Your task to perform on an android device: Play the last video I watched on Youtube Image 0: 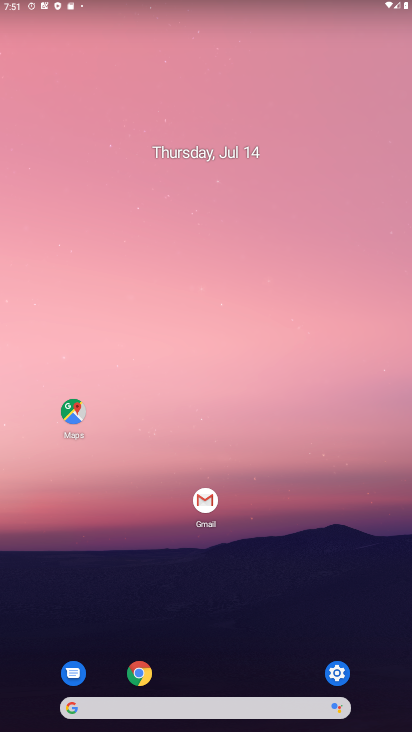
Step 0: drag from (281, 480) to (329, 145)
Your task to perform on an android device: Play the last video I watched on Youtube Image 1: 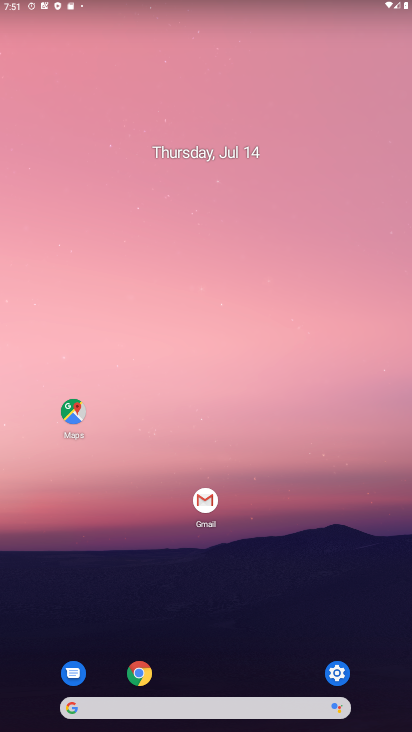
Step 1: drag from (207, 710) to (297, 95)
Your task to perform on an android device: Play the last video I watched on Youtube Image 2: 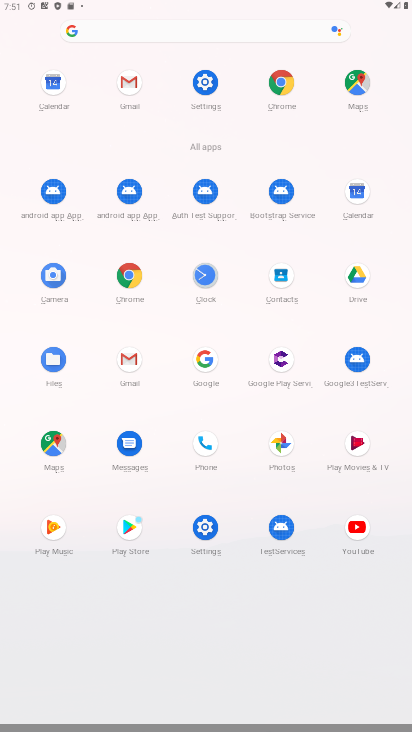
Step 2: click (353, 535)
Your task to perform on an android device: Play the last video I watched on Youtube Image 3: 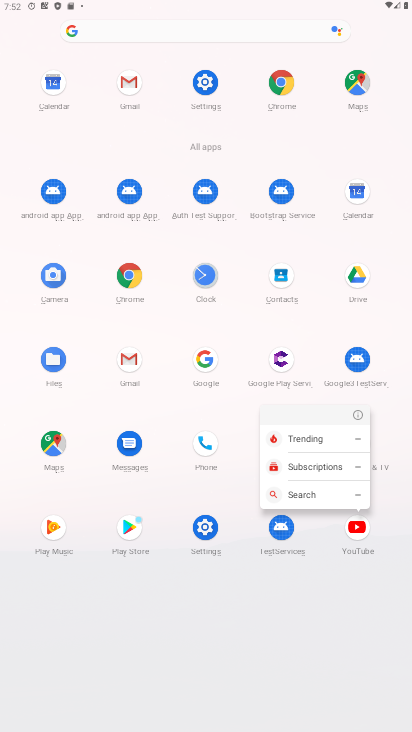
Step 3: click (352, 532)
Your task to perform on an android device: Play the last video I watched on Youtube Image 4: 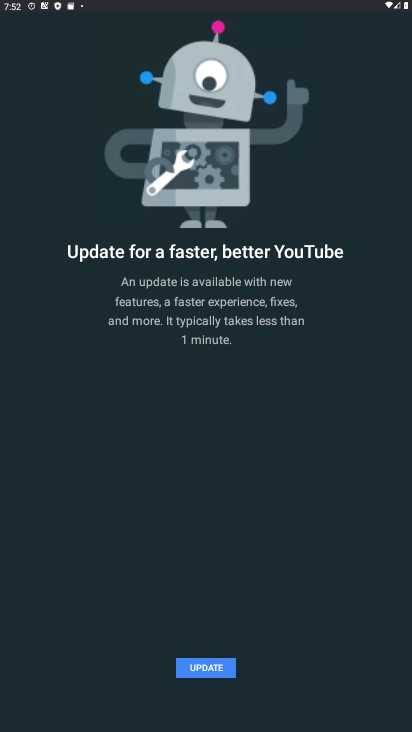
Step 4: click (213, 663)
Your task to perform on an android device: Play the last video I watched on Youtube Image 5: 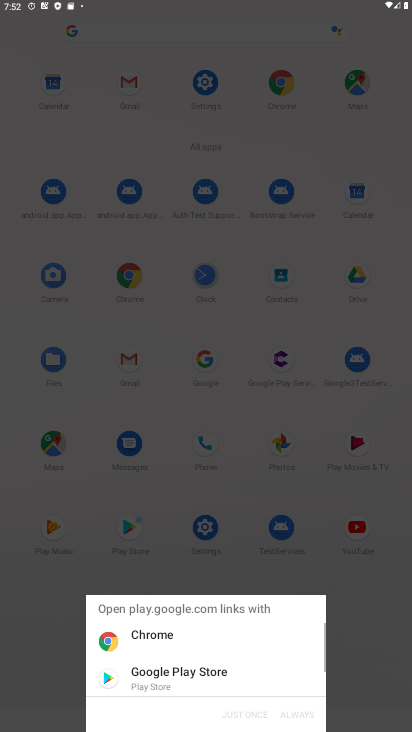
Step 5: click (210, 682)
Your task to perform on an android device: Play the last video I watched on Youtube Image 6: 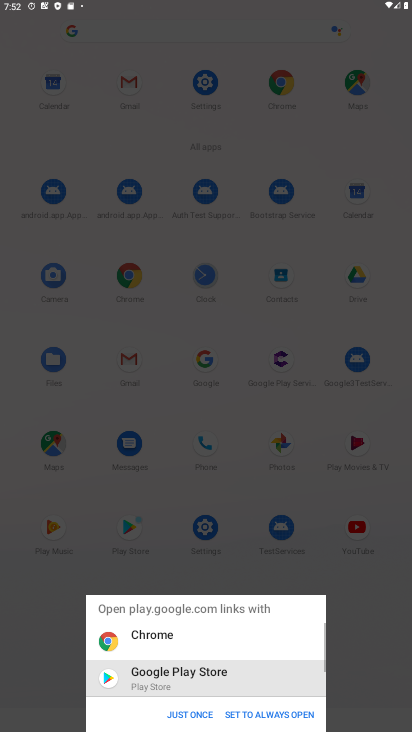
Step 6: click (185, 714)
Your task to perform on an android device: Play the last video I watched on Youtube Image 7: 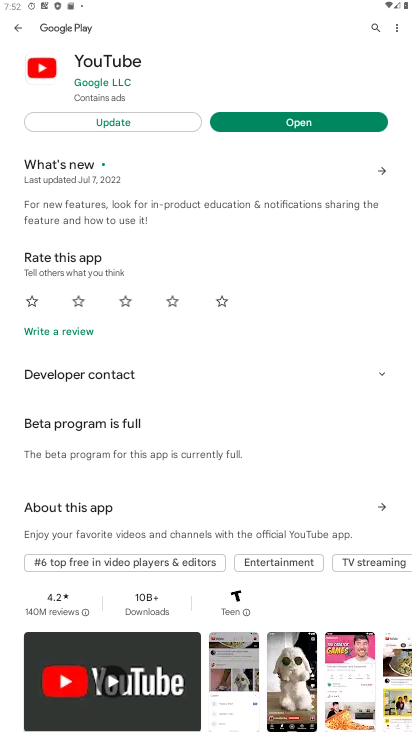
Step 7: click (108, 126)
Your task to perform on an android device: Play the last video I watched on Youtube Image 8: 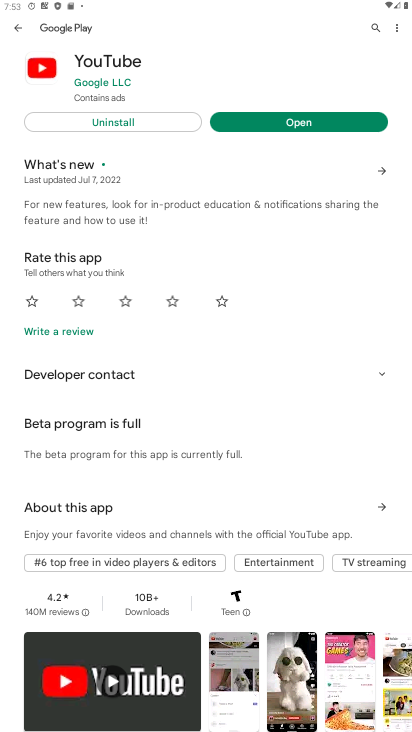
Step 8: click (294, 115)
Your task to perform on an android device: Play the last video I watched on Youtube Image 9: 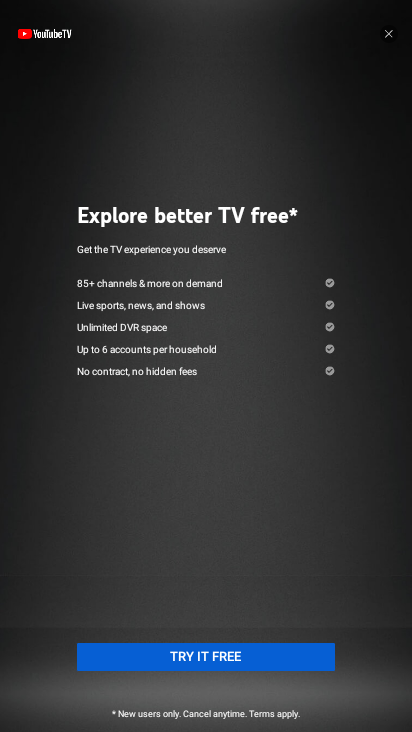
Step 9: click (390, 36)
Your task to perform on an android device: Play the last video I watched on Youtube Image 10: 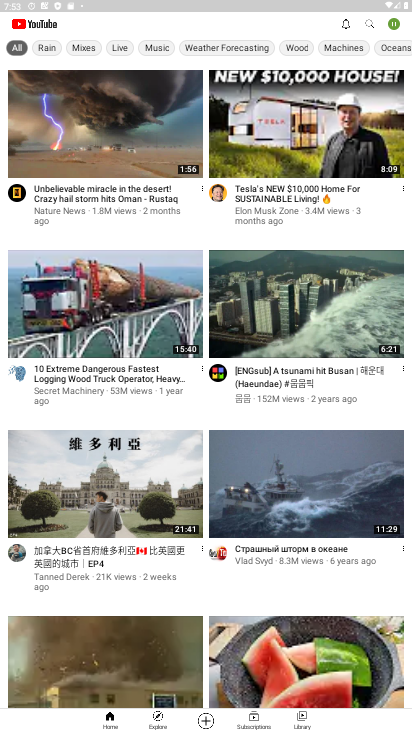
Step 10: click (295, 724)
Your task to perform on an android device: Play the last video I watched on Youtube Image 11: 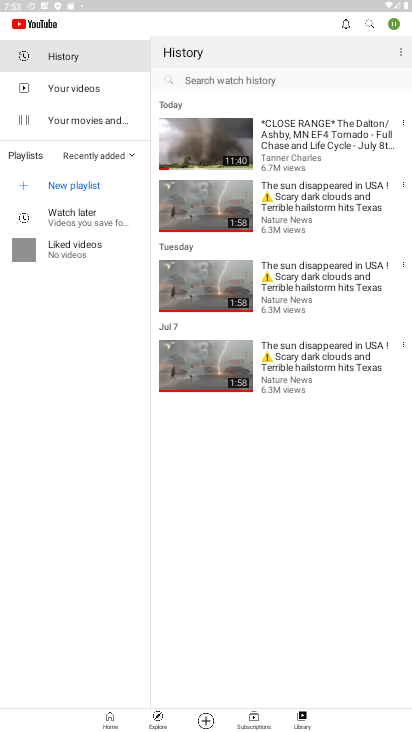
Step 11: click (192, 139)
Your task to perform on an android device: Play the last video I watched on Youtube Image 12: 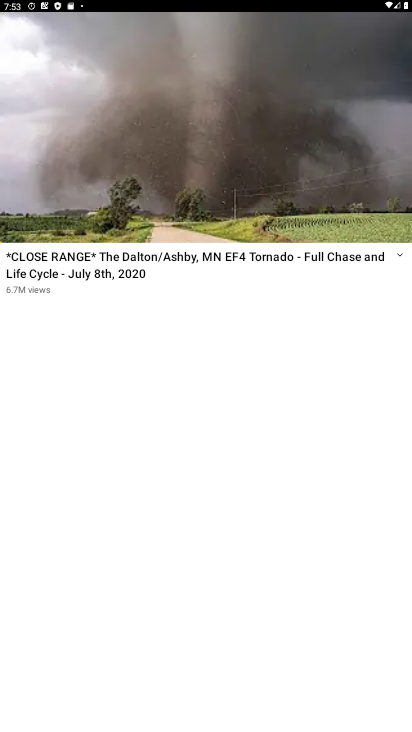
Step 12: click (188, 132)
Your task to perform on an android device: Play the last video I watched on Youtube Image 13: 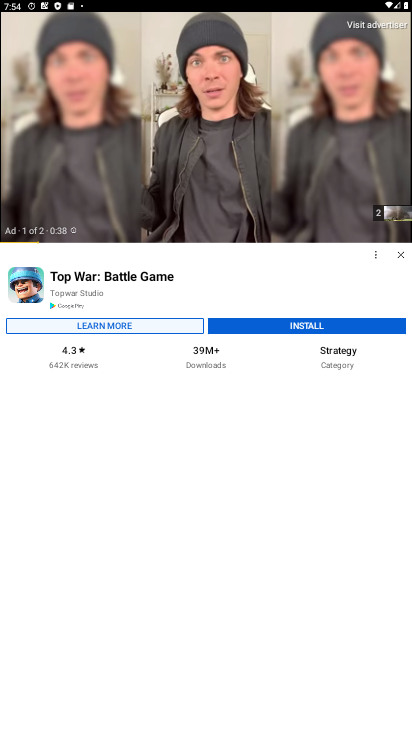
Step 13: task complete